Your task to perform on an android device: View the shopping cart on newegg. Search for "beats solo 3" on newegg, select the first entry, and add it to the cart. Image 0: 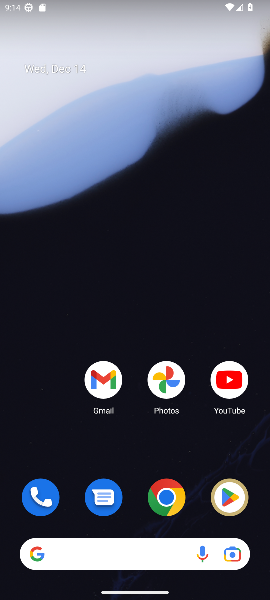
Step 0: click (165, 499)
Your task to perform on an android device: View the shopping cart on newegg. Search for "beats solo 3" on newegg, select the first entry, and add it to the cart. Image 1: 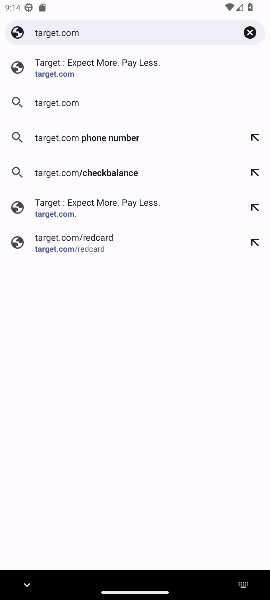
Step 1: click (251, 34)
Your task to perform on an android device: View the shopping cart on newegg. Search for "beats solo 3" on newegg, select the first entry, and add it to the cart. Image 2: 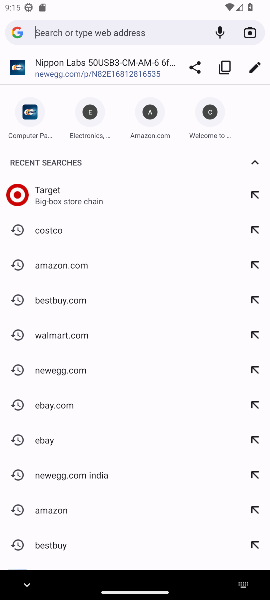
Step 2: type "newegg"
Your task to perform on an android device: View the shopping cart on newegg. Search for "beats solo 3" on newegg, select the first entry, and add it to the cart. Image 3: 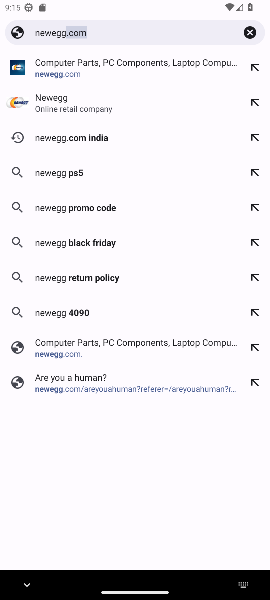
Step 3: press enter
Your task to perform on an android device: View the shopping cart on newegg. Search for "beats solo 3" on newegg, select the first entry, and add it to the cart. Image 4: 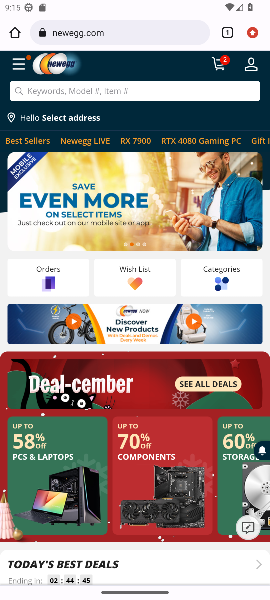
Step 4: click (222, 66)
Your task to perform on an android device: View the shopping cart on newegg. Search for "beats solo 3" on newegg, select the first entry, and add it to the cart. Image 5: 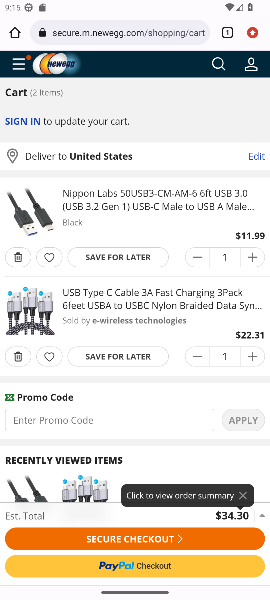
Step 5: click (216, 65)
Your task to perform on an android device: View the shopping cart on newegg. Search for "beats solo 3" on newegg, select the first entry, and add it to the cart. Image 6: 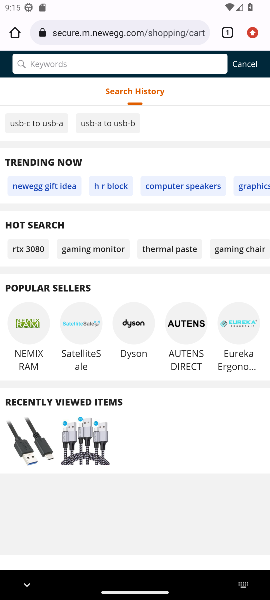
Step 6: type "beats solo 3"
Your task to perform on an android device: View the shopping cart on newegg. Search for "beats solo 3" on newegg, select the first entry, and add it to the cart. Image 7: 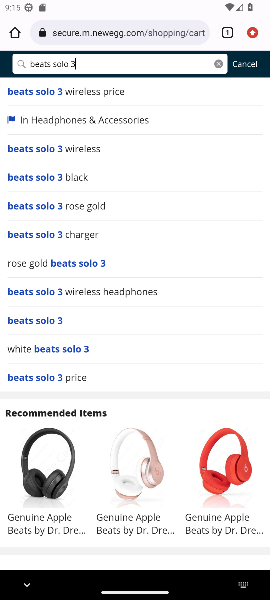
Step 7: press enter
Your task to perform on an android device: View the shopping cart on newegg. Search for "beats solo 3" on newegg, select the first entry, and add it to the cart. Image 8: 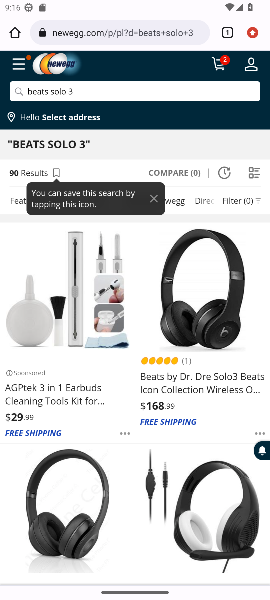
Step 8: click (232, 343)
Your task to perform on an android device: View the shopping cart on newegg. Search for "beats solo 3" on newegg, select the first entry, and add it to the cart. Image 9: 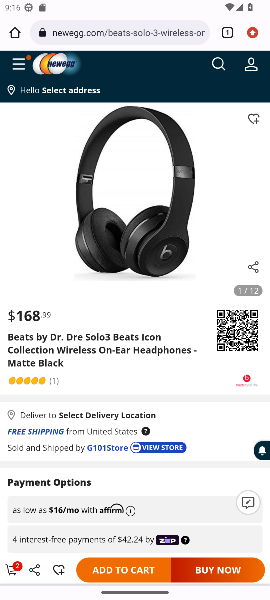
Step 9: click (119, 572)
Your task to perform on an android device: View the shopping cart on newegg. Search for "beats solo 3" on newegg, select the first entry, and add it to the cart. Image 10: 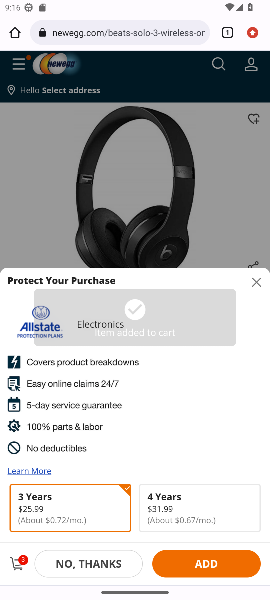
Step 10: click (192, 565)
Your task to perform on an android device: View the shopping cart on newegg. Search for "beats solo 3" on newegg, select the first entry, and add it to the cart. Image 11: 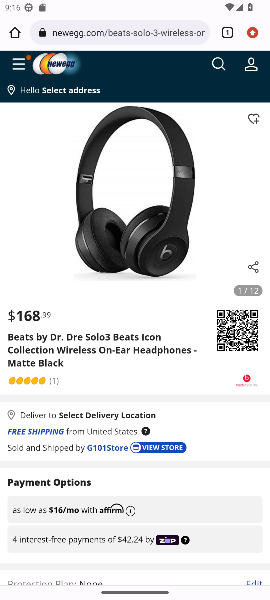
Step 11: task complete